Your task to perform on an android device: Open the stopwatch Image 0: 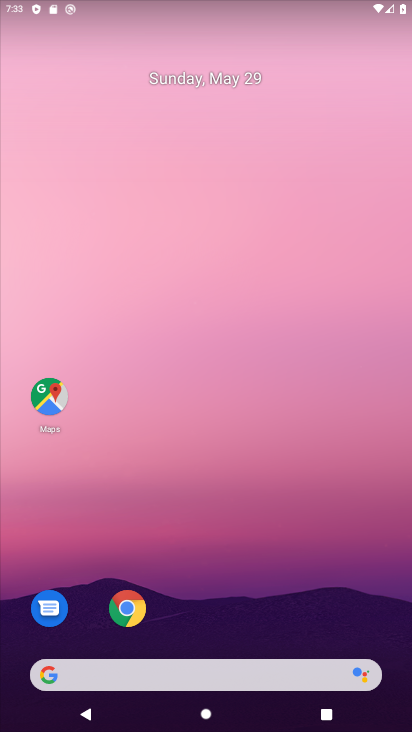
Step 0: drag from (232, 552) to (136, 0)
Your task to perform on an android device: Open the stopwatch Image 1: 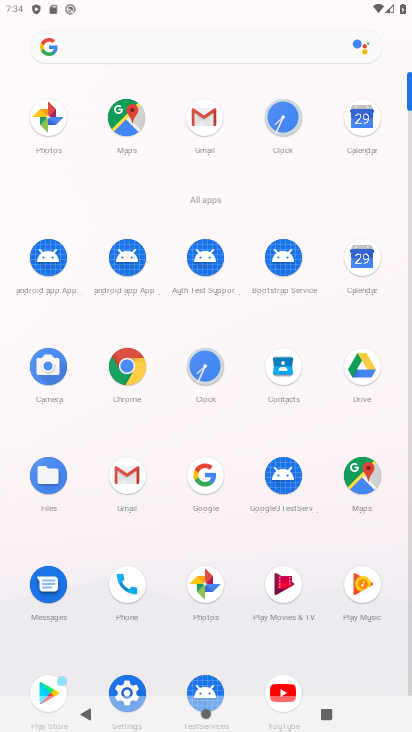
Step 1: click (281, 119)
Your task to perform on an android device: Open the stopwatch Image 2: 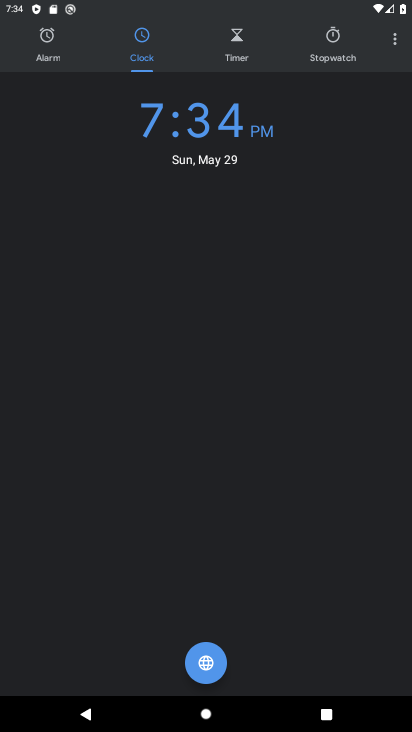
Step 2: click (331, 42)
Your task to perform on an android device: Open the stopwatch Image 3: 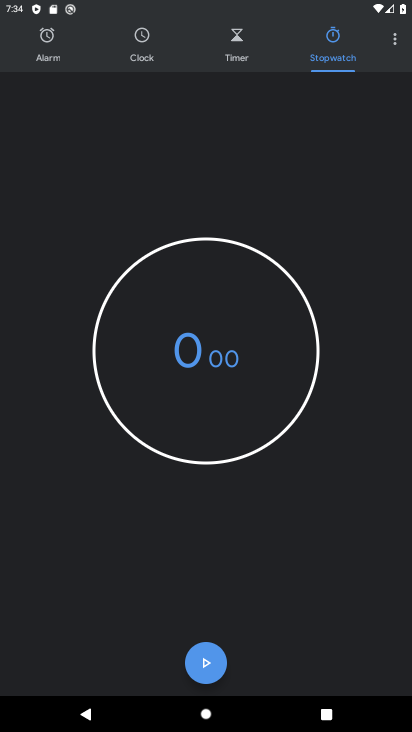
Step 3: task complete